Your task to perform on an android device: Go to privacy settings Image 0: 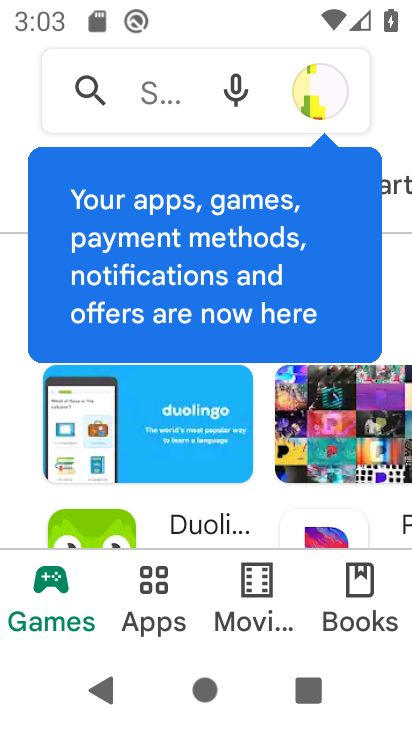
Step 0: press home button
Your task to perform on an android device: Go to privacy settings Image 1: 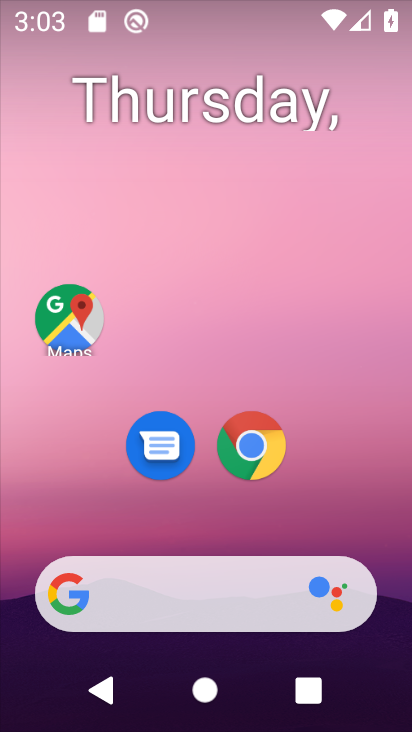
Step 1: drag from (319, 470) to (314, 81)
Your task to perform on an android device: Go to privacy settings Image 2: 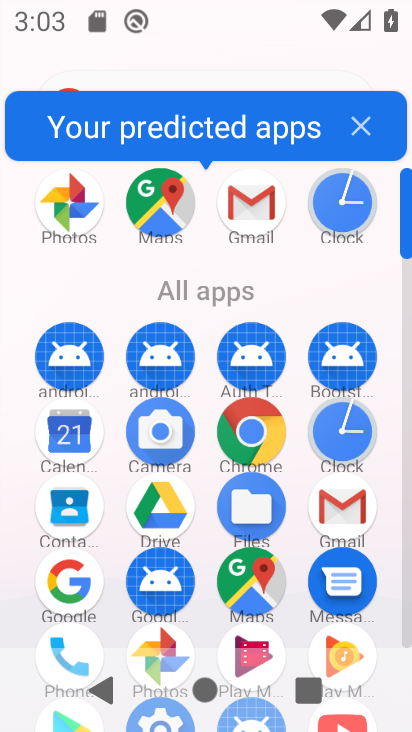
Step 2: drag from (306, 559) to (305, 265)
Your task to perform on an android device: Go to privacy settings Image 3: 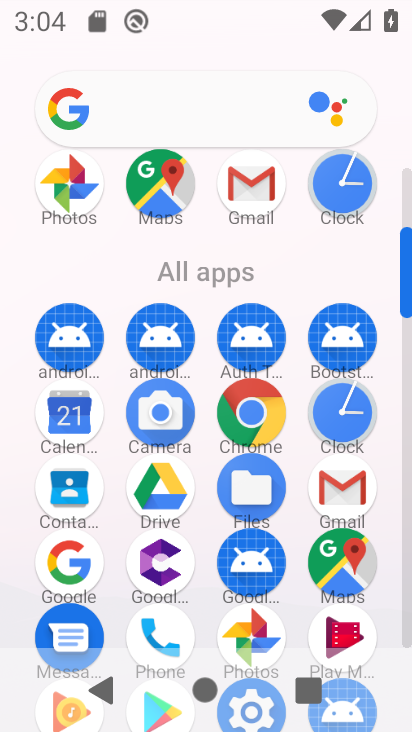
Step 3: click (158, 692)
Your task to perform on an android device: Go to privacy settings Image 4: 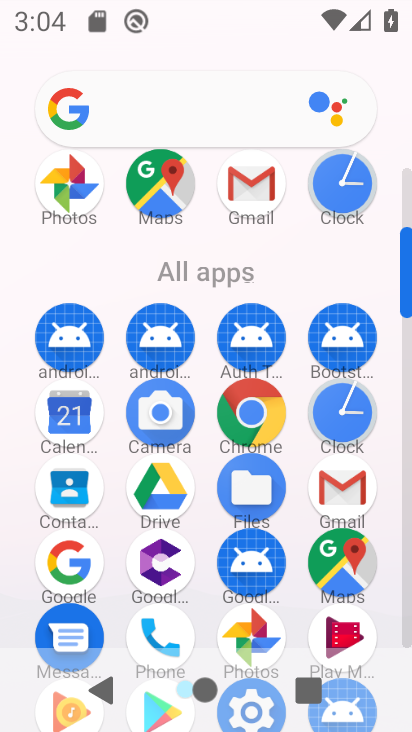
Step 4: click (243, 706)
Your task to perform on an android device: Go to privacy settings Image 5: 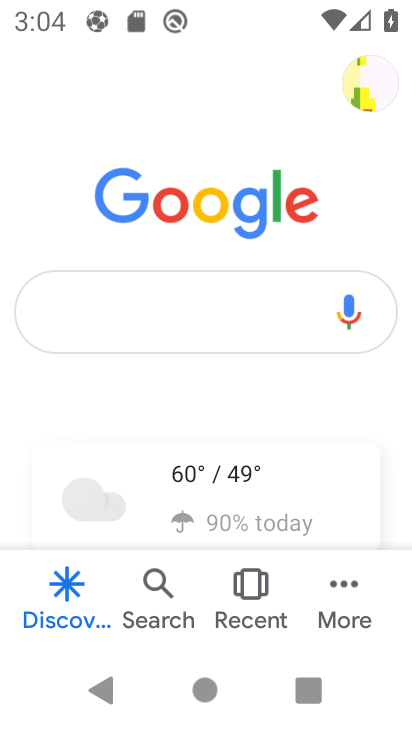
Step 5: click (348, 584)
Your task to perform on an android device: Go to privacy settings Image 6: 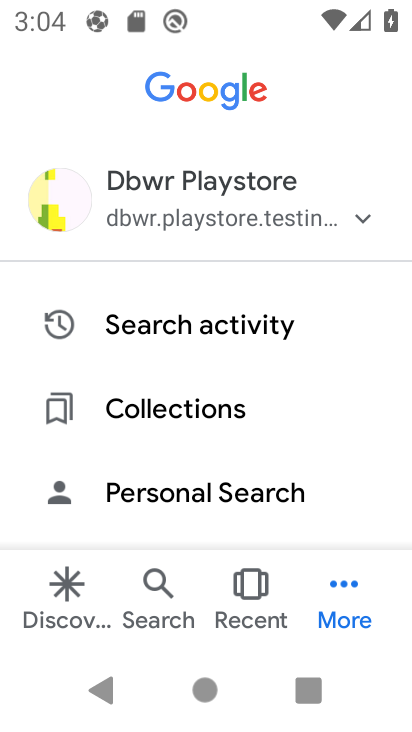
Step 6: drag from (301, 452) to (319, 132)
Your task to perform on an android device: Go to privacy settings Image 7: 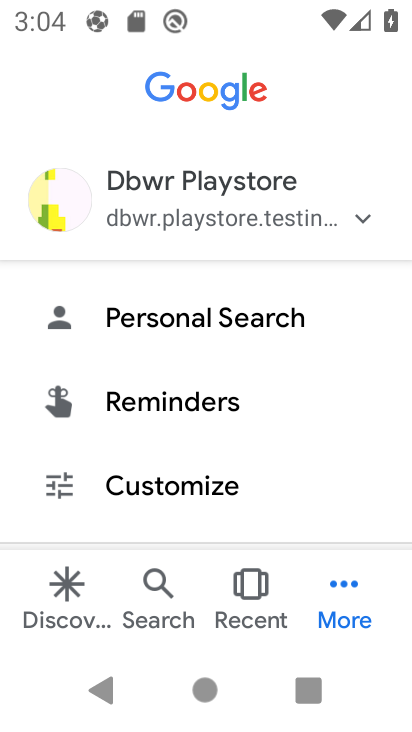
Step 7: drag from (297, 465) to (336, 187)
Your task to perform on an android device: Go to privacy settings Image 8: 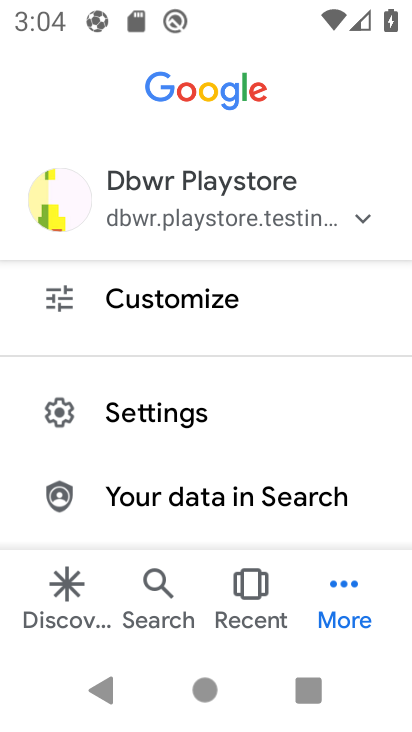
Step 8: click (172, 409)
Your task to perform on an android device: Go to privacy settings Image 9: 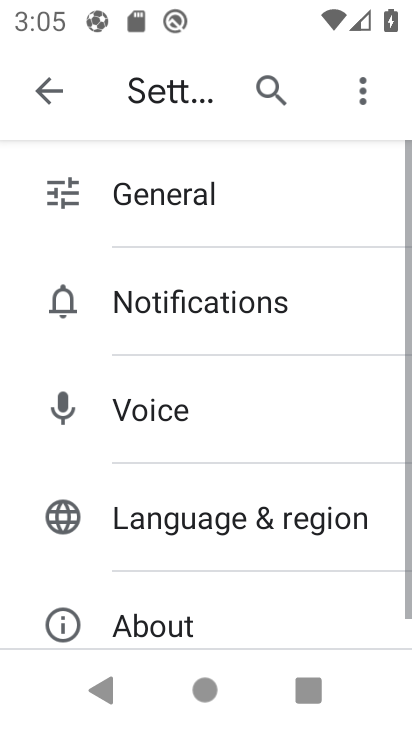
Step 9: drag from (210, 575) to (210, 176)
Your task to perform on an android device: Go to privacy settings Image 10: 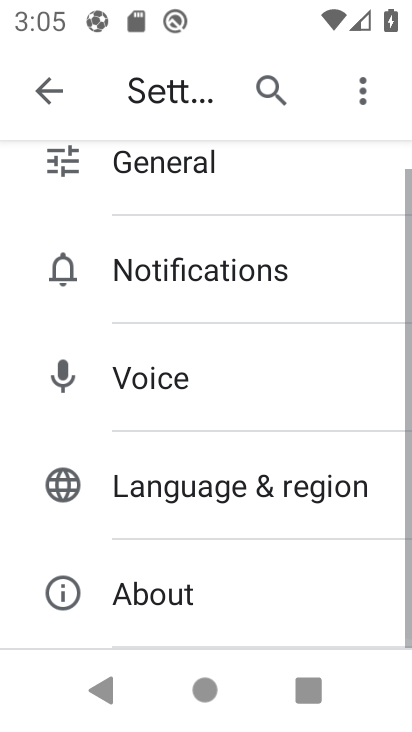
Step 10: drag from (209, 279) to (232, 496)
Your task to perform on an android device: Go to privacy settings Image 11: 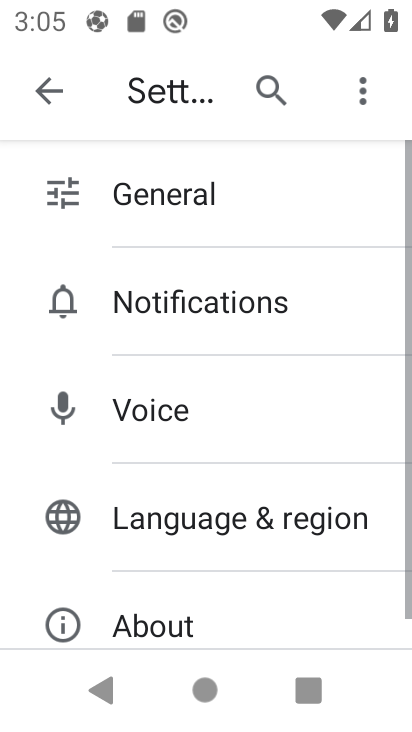
Step 11: click (187, 195)
Your task to perform on an android device: Go to privacy settings Image 12: 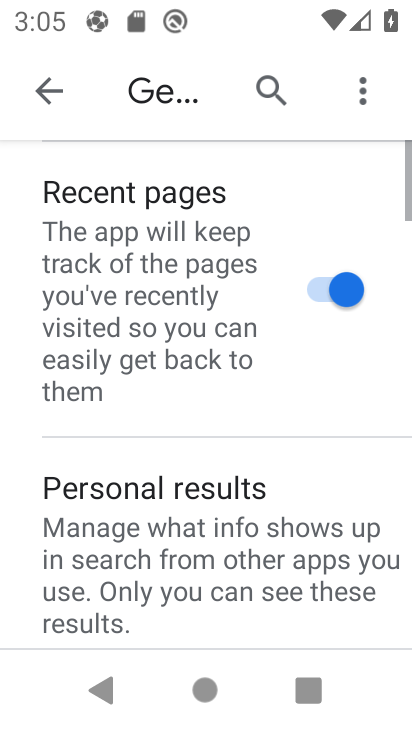
Step 12: task complete